Your task to perform on an android device: check data usage Image 0: 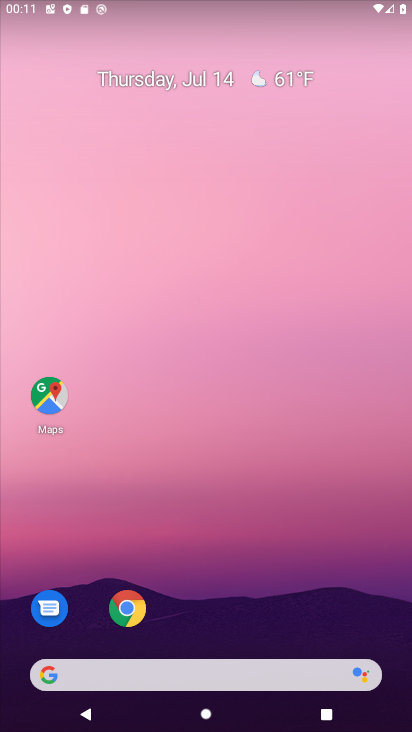
Step 0: click (242, 44)
Your task to perform on an android device: check data usage Image 1: 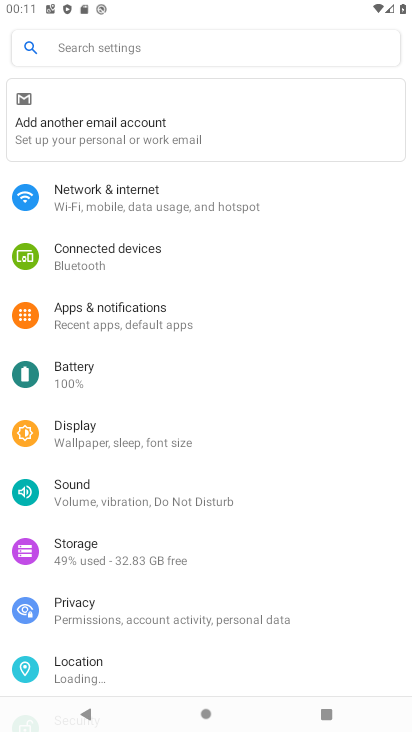
Step 1: press home button
Your task to perform on an android device: check data usage Image 2: 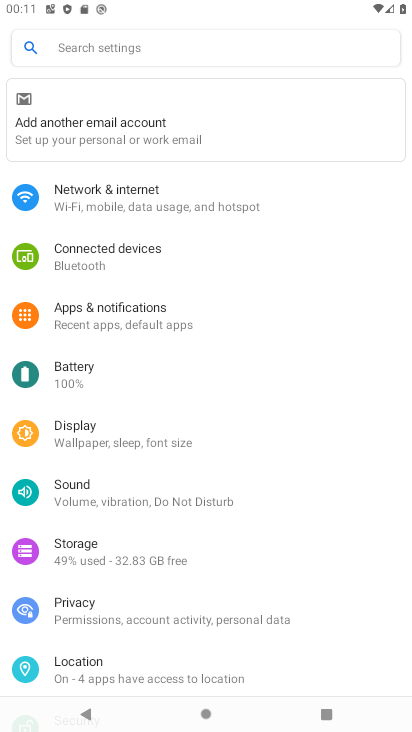
Step 2: press home button
Your task to perform on an android device: check data usage Image 3: 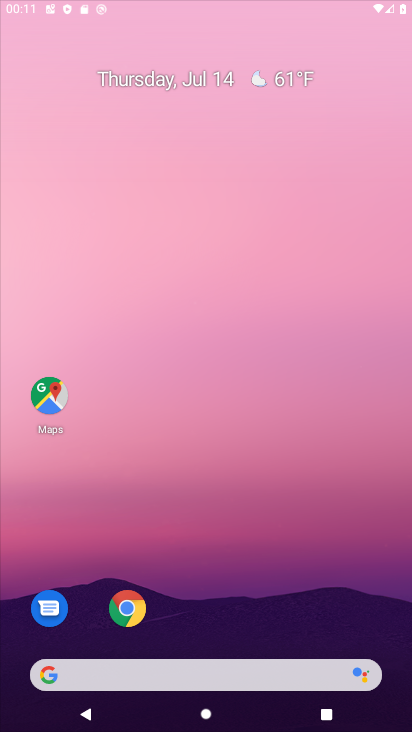
Step 3: drag from (211, 326) to (212, 240)
Your task to perform on an android device: check data usage Image 4: 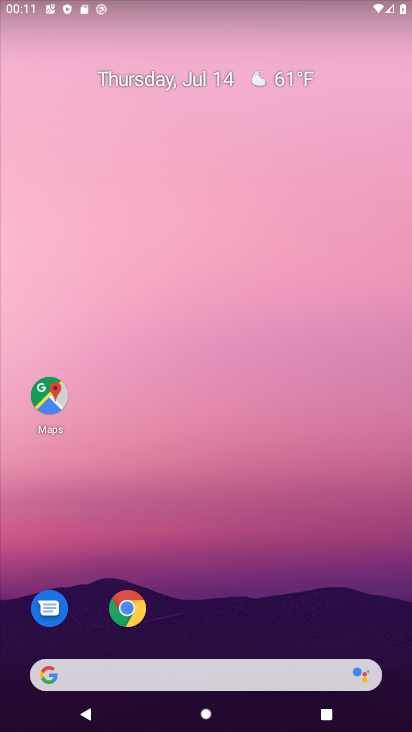
Step 4: drag from (201, 523) to (252, 28)
Your task to perform on an android device: check data usage Image 5: 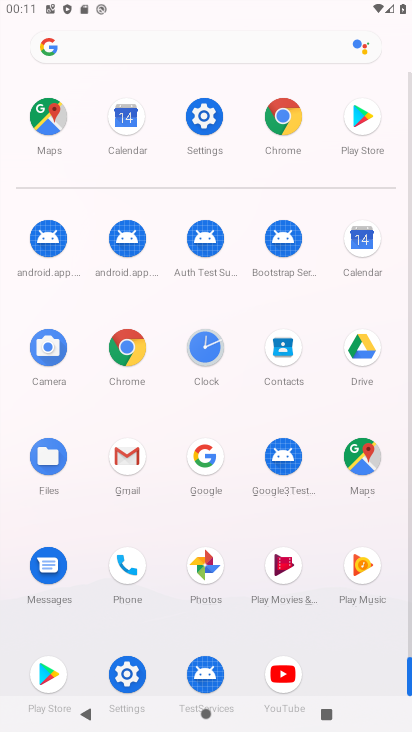
Step 5: click (209, 113)
Your task to perform on an android device: check data usage Image 6: 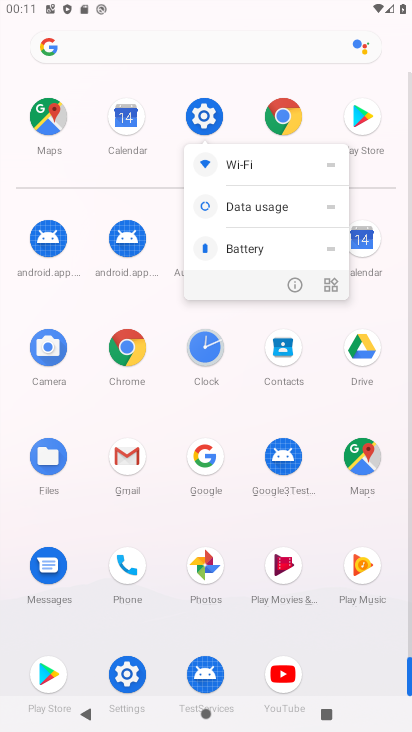
Step 6: click (296, 290)
Your task to perform on an android device: check data usage Image 7: 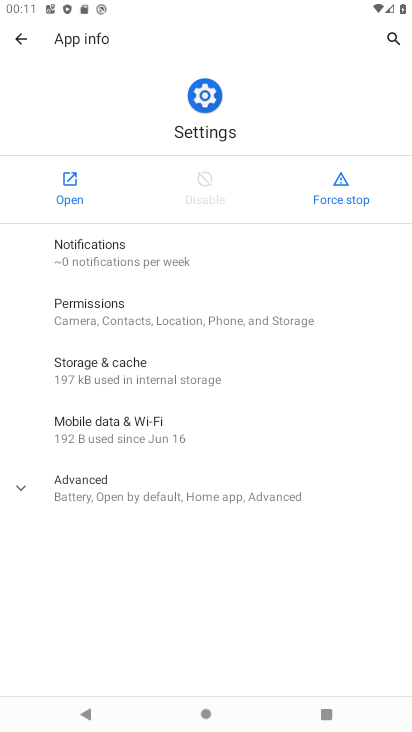
Step 7: click (75, 187)
Your task to perform on an android device: check data usage Image 8: 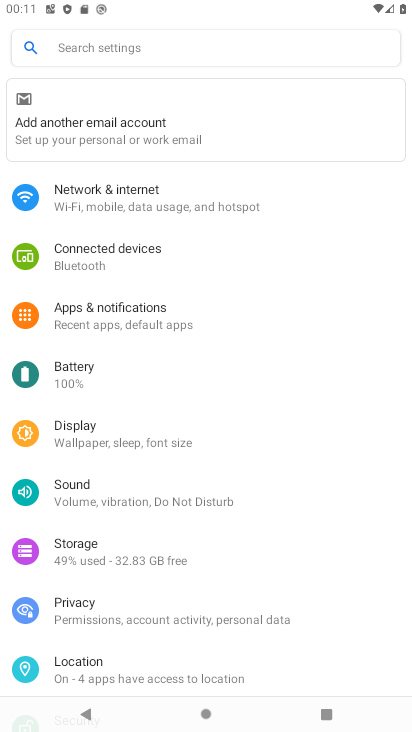
Step 8: click (90, 197)
Your task to perform on an android device: check data usage Image 9: 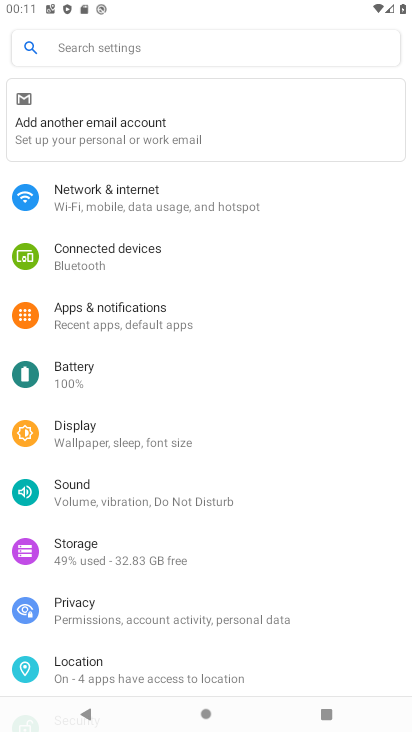
Step 9: click (90, 197)
Your task to perform on an android device: check data usage Image 10: 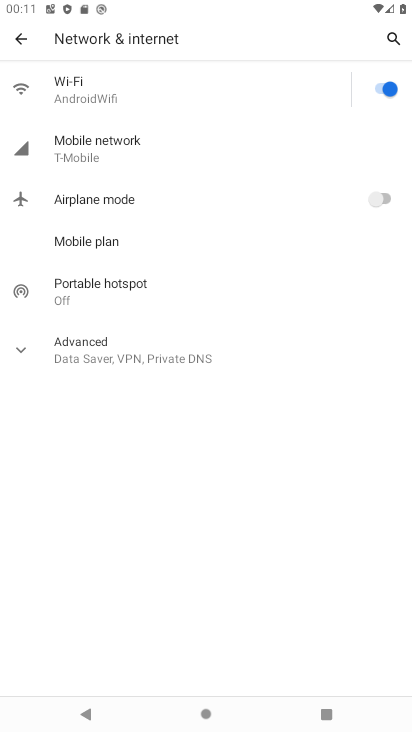
Step 10: click (155, 144)
Your task to perform on an android device: check data usage Image 11: 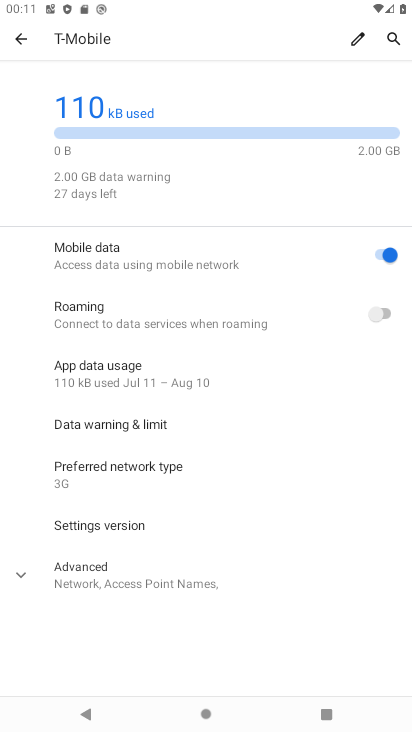
Step 11: task complete